Your task to perform on an android device: find which apps use the phone's location Image 0: 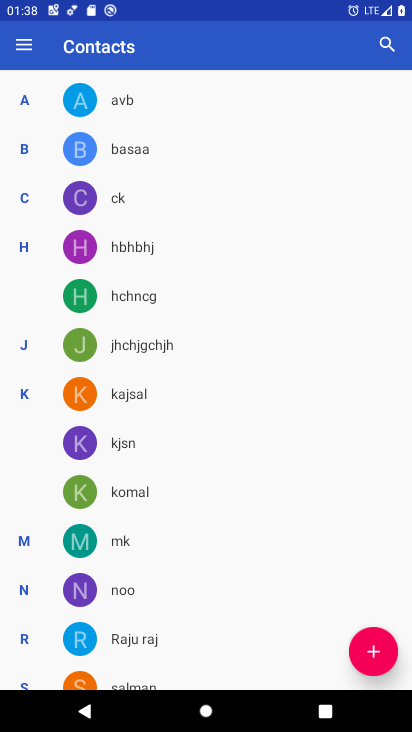
Step 0: press home button
Your task to perform on an android device: find which apps use the phone's location Image 1: 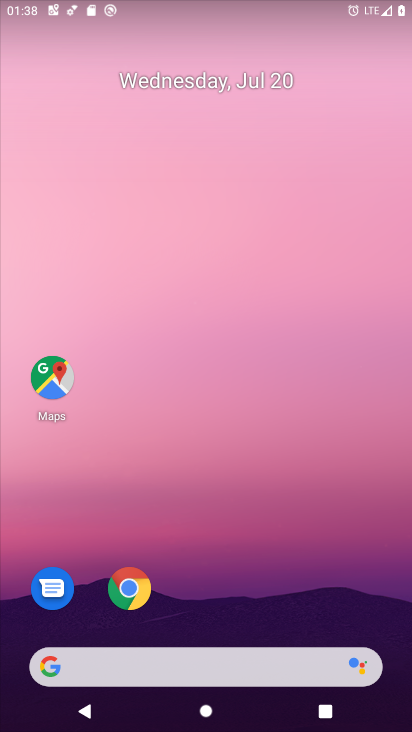
Step 1: drag from (271, 584) to (282, 239)
Your task to perform on an android device: find which apps use the phone's location Image 2: 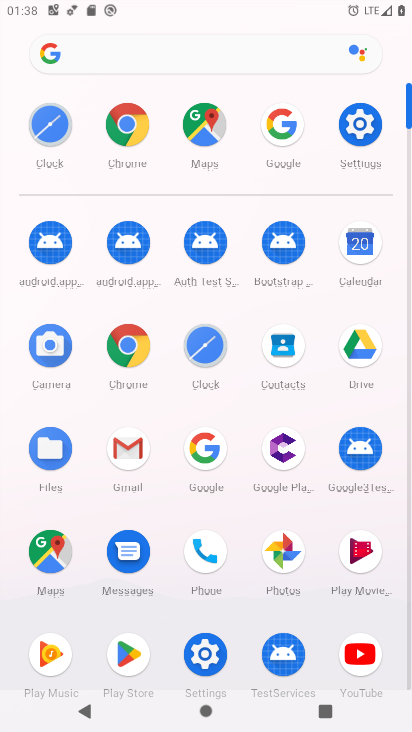
Step 2: click (363, 120)
Your task to perform on an android device: find which apps use the phone's location Image 3: 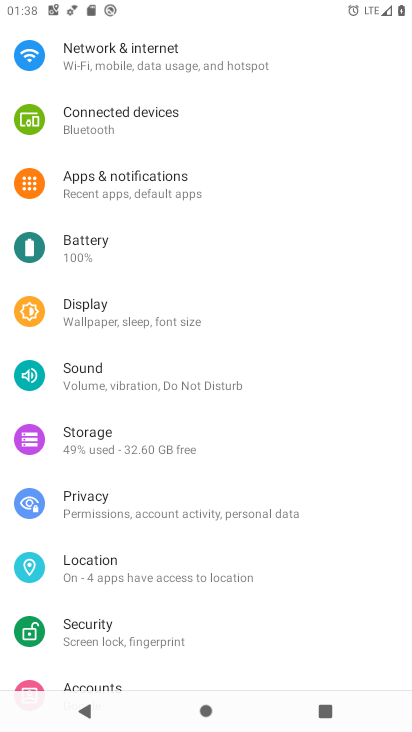
Step 3: click (150, 566)
Your task to perform on an android device: find which apps use the phone's location Image 4: 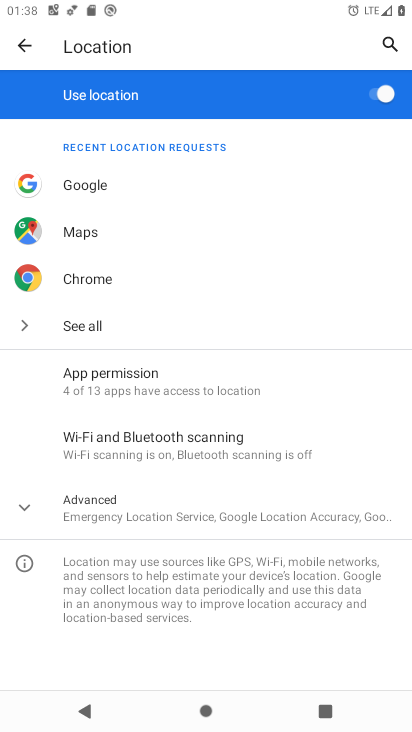
Step 4: task complete